Your task to perform on an android device: Clear all items from cart on bestbuy.com. Add logitech g903 to the cart on bestbuy.com, then select checkout. Image 0: 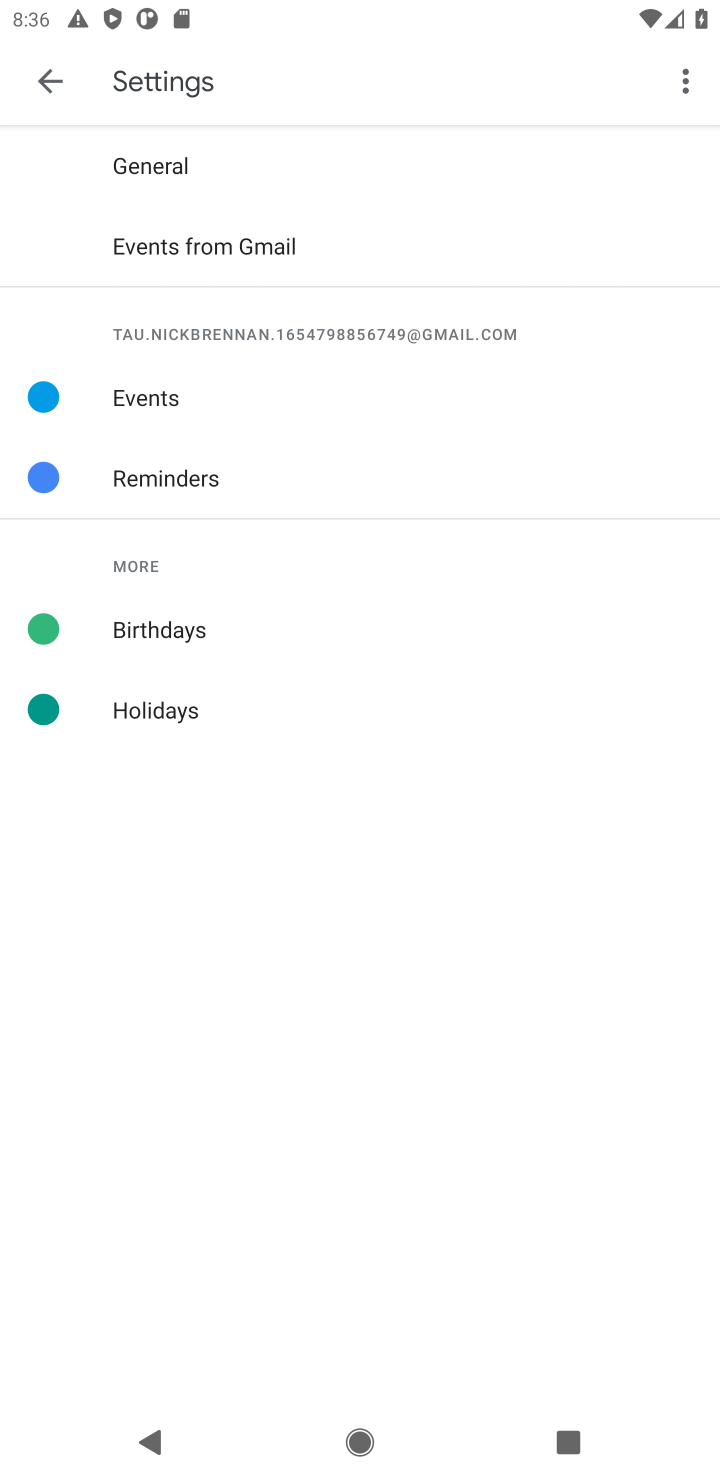
Step 0: press home button
Your task to perform on an android device: Clear all items from cart on bestbuy.com. Add logitech g903 to the cart on bestbuy.com, then select checkout. Image 1: 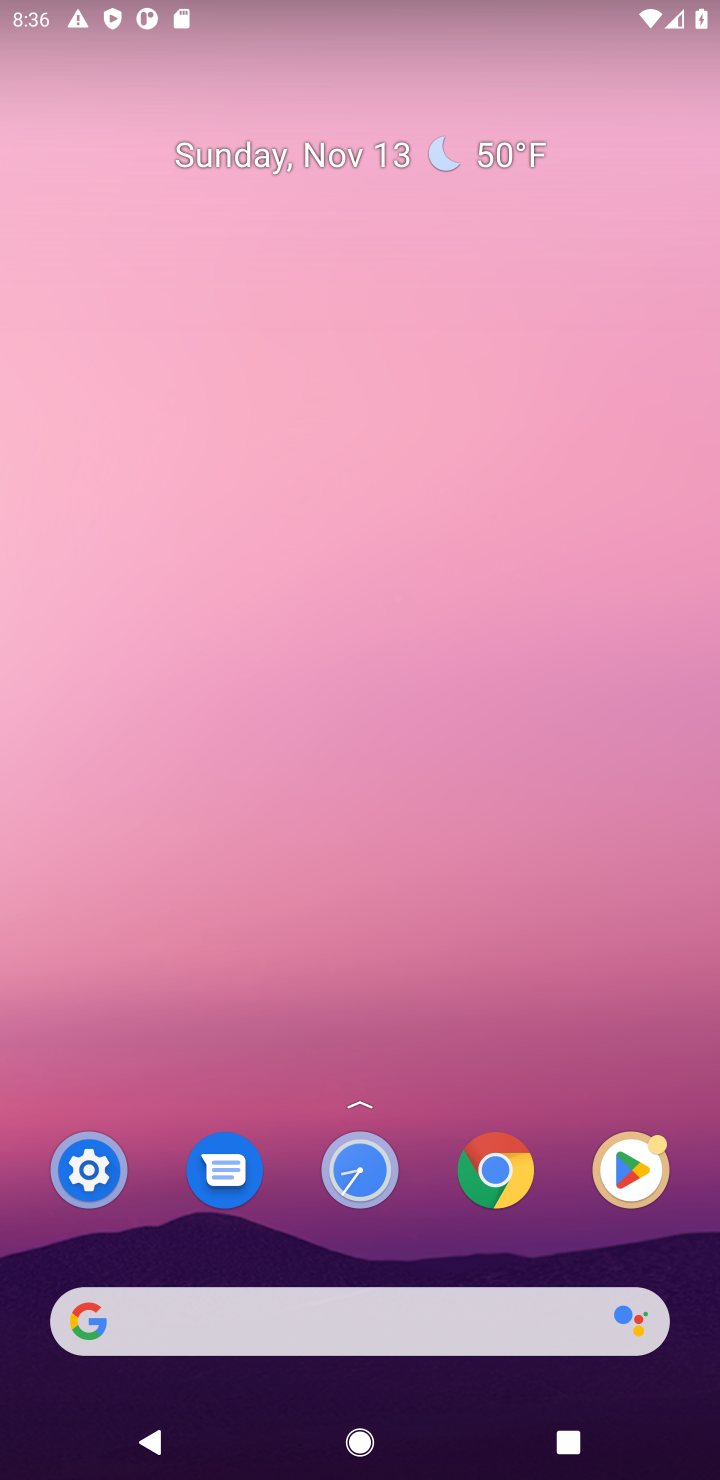
Step 1: click (432, 1278)
Your task to perform on an android device: Clear all items from cart on bestbuy.com. Add logitech g903 to the cart on bestbuy.com, then select checkout. Image 2: 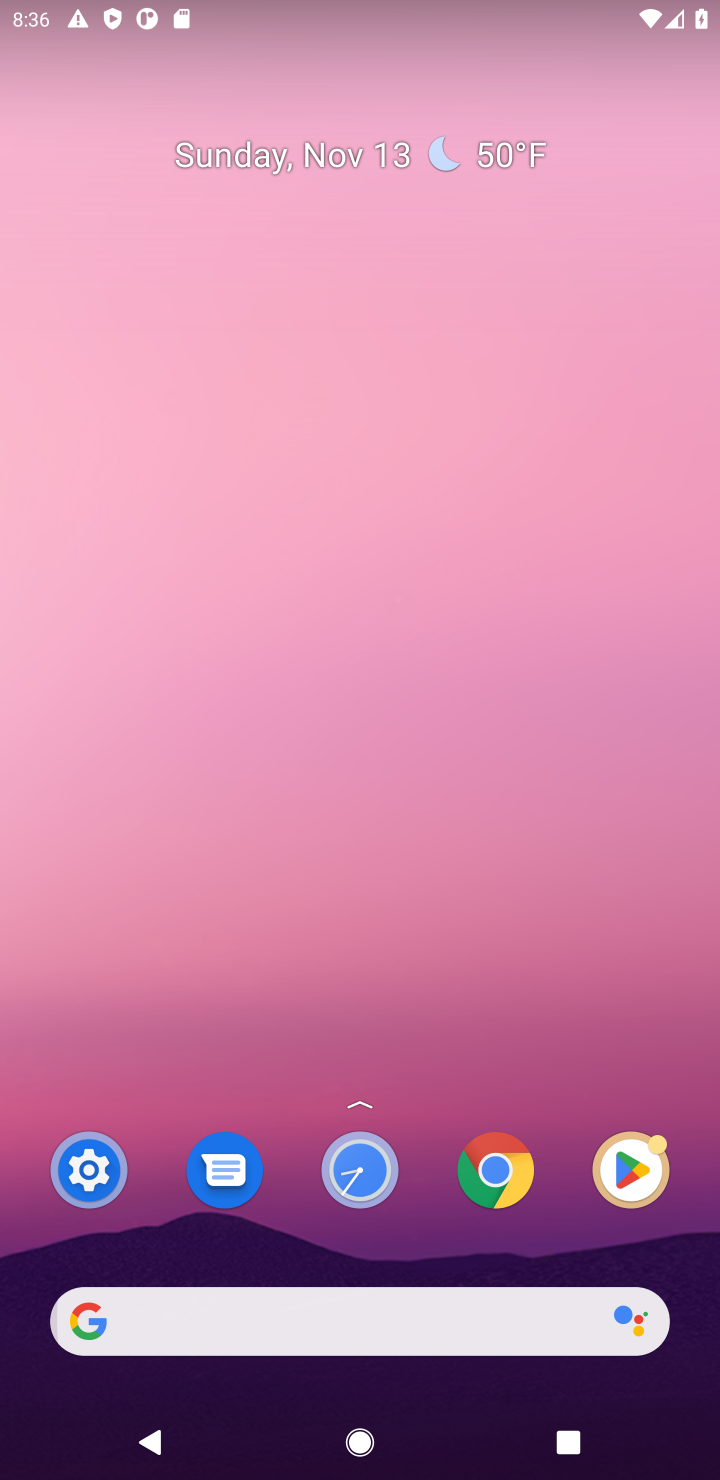
Step 2: click (431, 1345)
Your task to perform on an android device: Clear all items from cart on bestbuy.com. Add logitech g903 to the cart on bestbuy.com, then select checkout. Image 3: 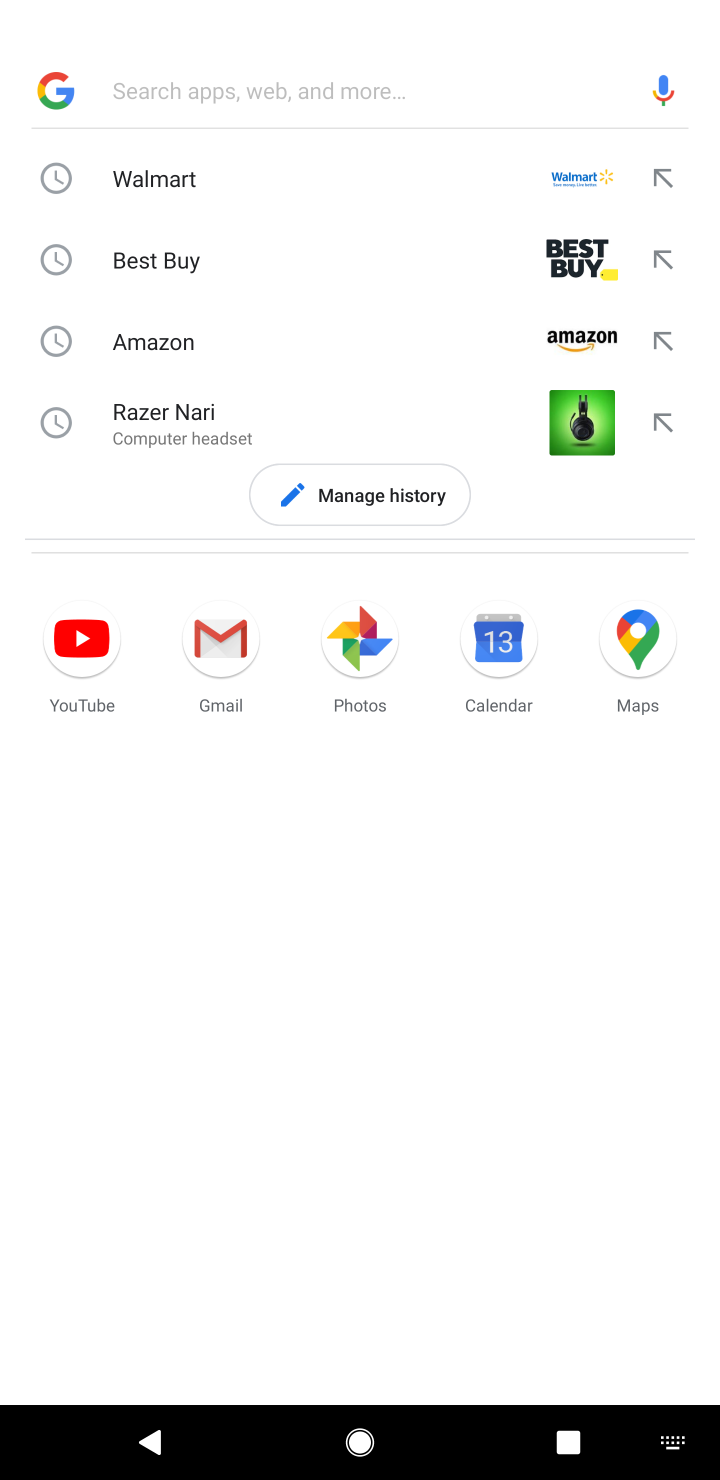
Step 3: click (353, 267)
Your task to perform on an android device: Clear all items from cart on bestbuy.com. Add logitech g903 to the cart on bestbuy.com, then select checkout. Image 4: 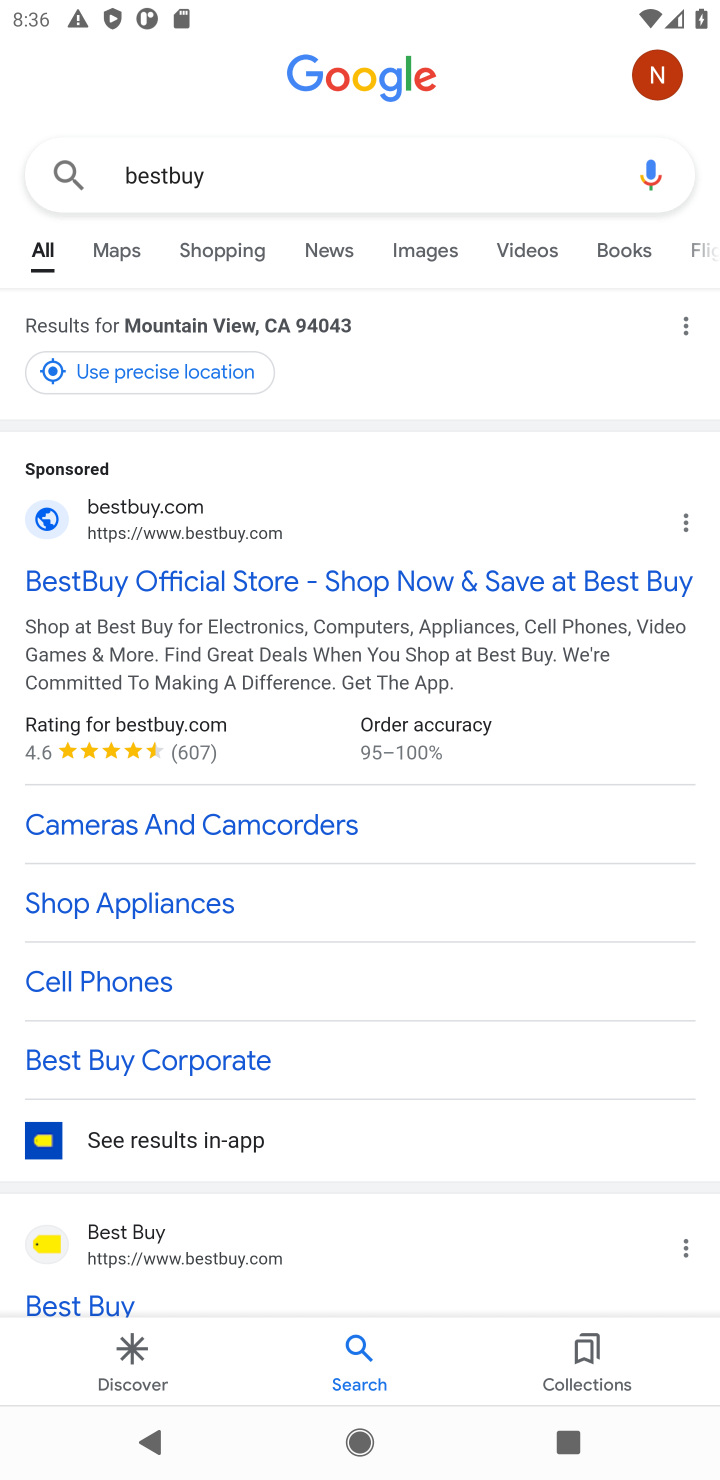
Step 4: click (308, 597)
Your task to perform on an android device: Clear all items from cart on bestbuy.com. Add logitech g903 to the cart on bestbuy.com, then select checkout. Image 5: 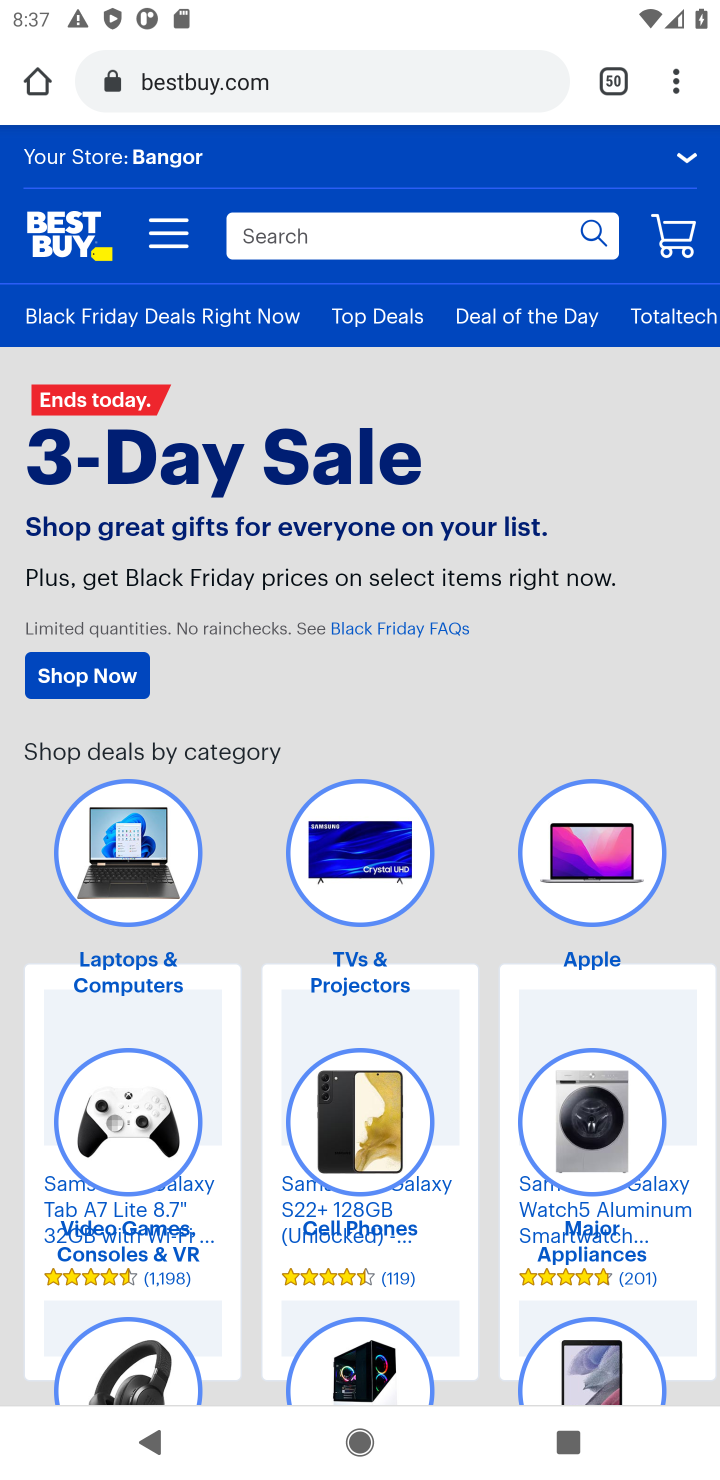
Step 5: task complete